Your task to perform on an android device: Open calendar and show me the fourth week of next month Image 0: 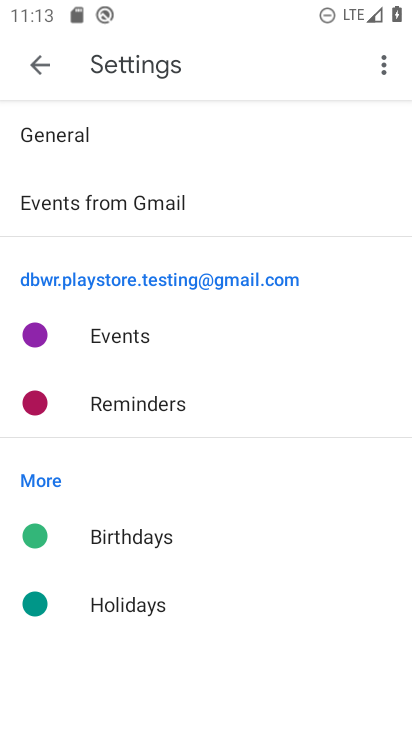
Step 0: press home button
Your task to perform on an android device: Open calendar and show me the fourth week of next month Image 1: 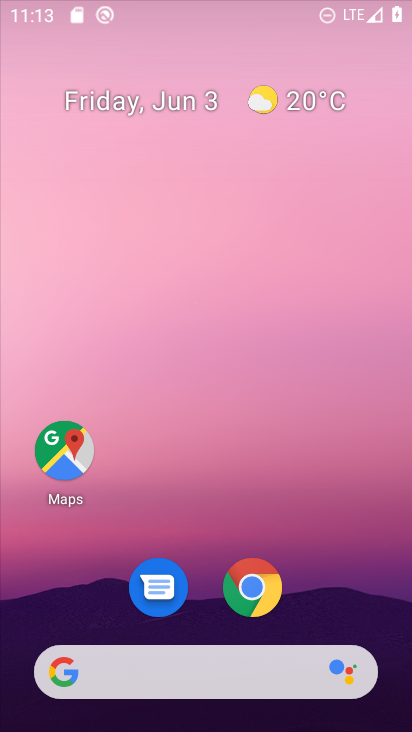
Step 1: click (110, 110)
Your task to perform on an android device: Open calendar and show me the fourth week of next month Image 2: 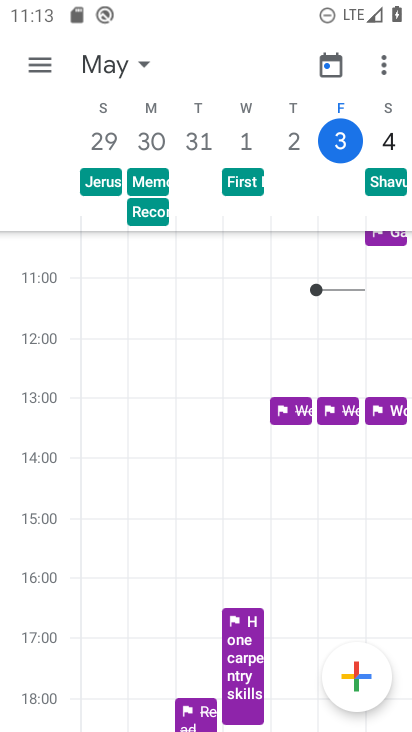
Step 2: click (135, 65)
Your task to perform on an android device: Open calendar and show me the fourth week of next month Image 3: 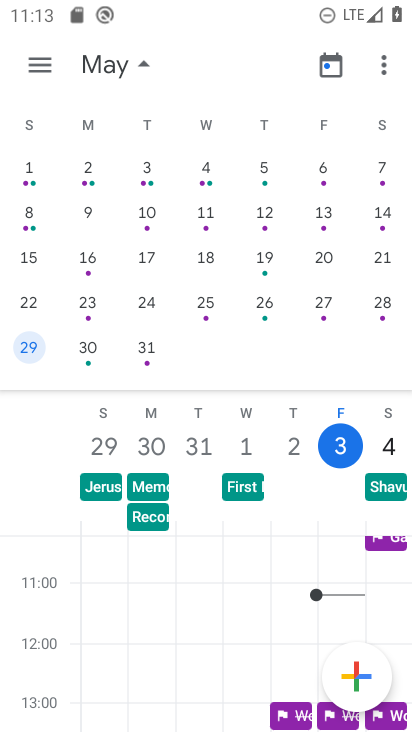
Step 3: drag from (362, 271) to (11, 228)
Your task to perform on an android device: Open calendar and show me the fourth week of next month Image 4: 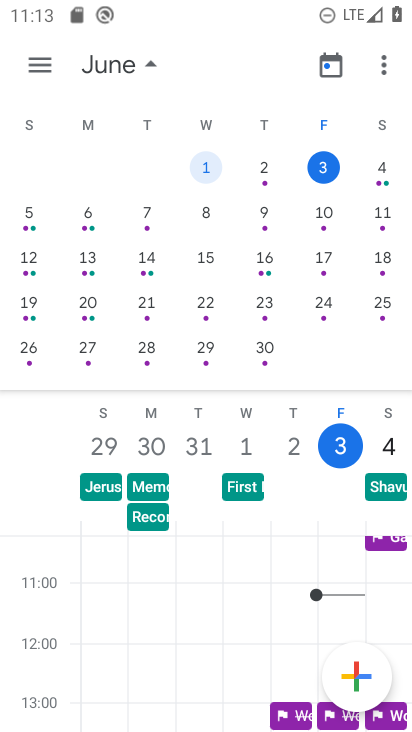
Step 4: click (41, 299)
Your task to perform on an android device: Open calendar and show me the fourth week of next month Image 5: 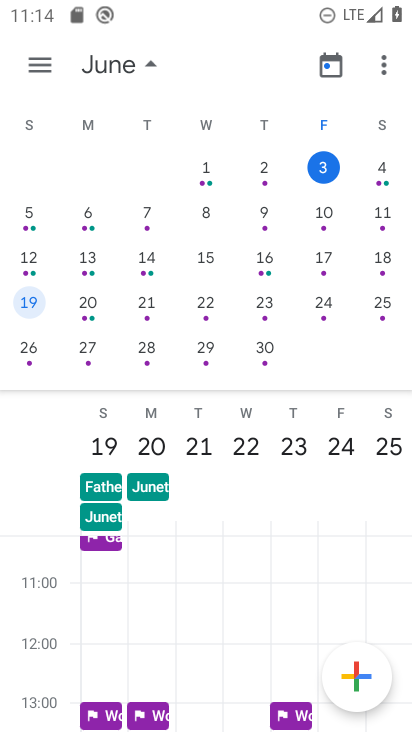
Step 5: task complete